Your task to perform on an android device: Open Chrome and go to the settings page Image 0: 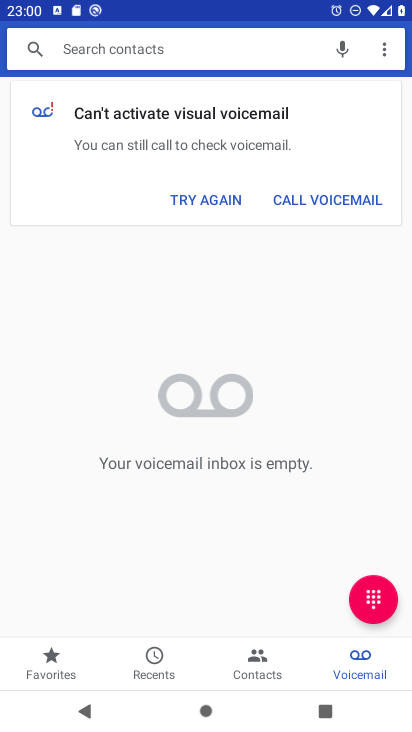
Step 0: press home button
Your task to perform on an android device: Open Chrome and go to the settings page Image 1: 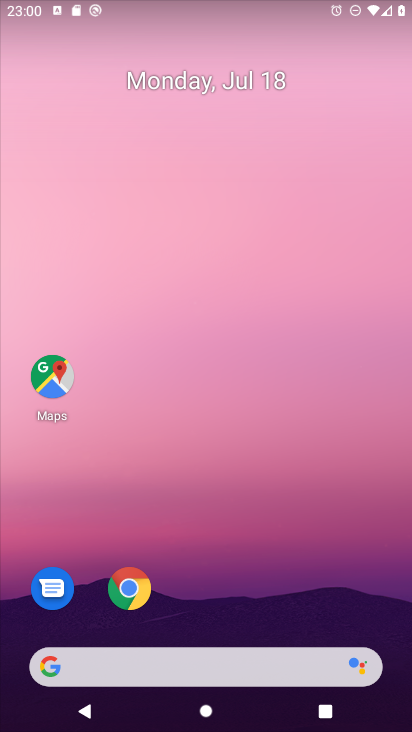
Step 1: click (127, 590)
Your task to perform on an android device: Open Chrome and go to the settings page Image 2: 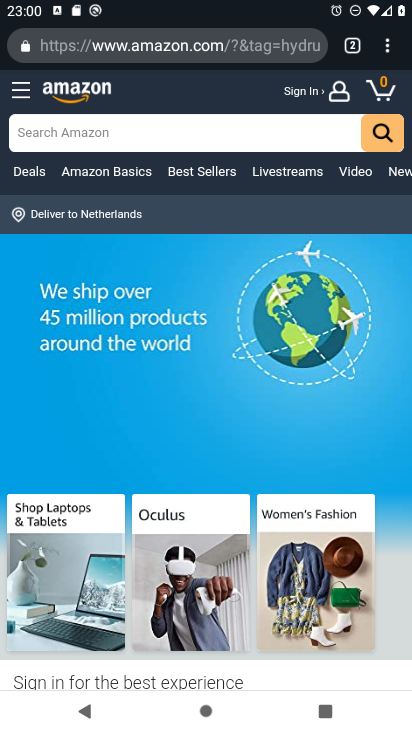
Step 2: click (388, 52)
Your task to perform on an android device: Open Chrome and go to the settings page Image 3: 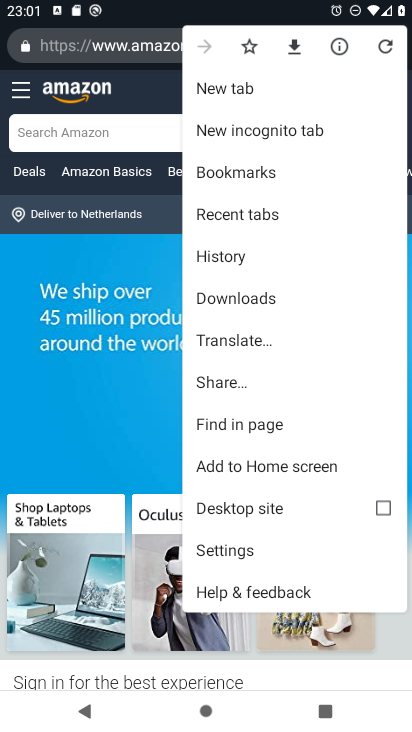
Step 3: click (222, 550)
Your task to perform on an android device: Open Chrome and go to the settings page Image 4: 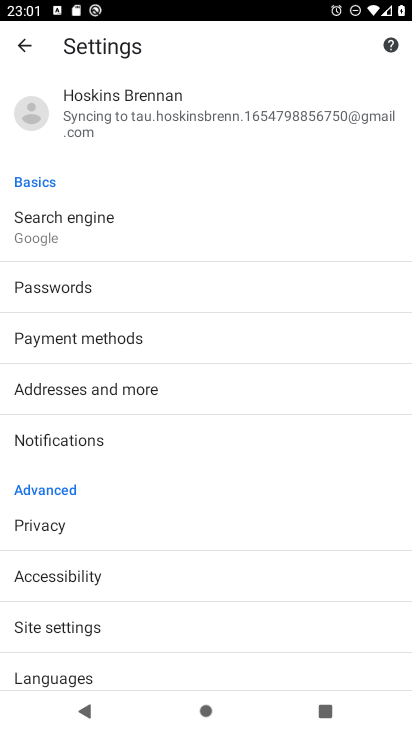
Step 4: task complete